Your task to perform on an android device: open chrome privacy settings Image 0: 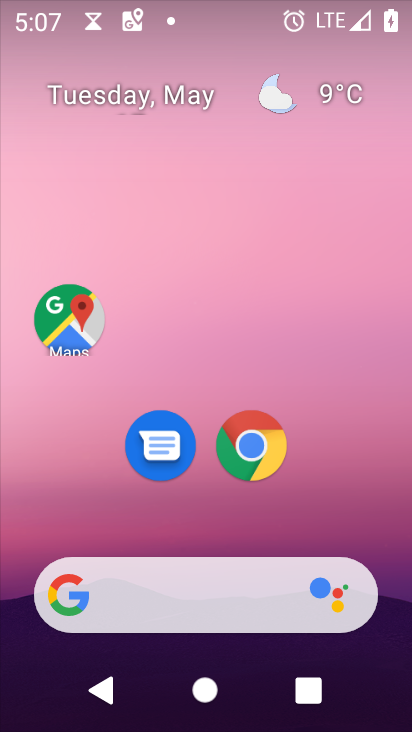
Step 0: drag from (348, 600) to (349, 47)
Your task to perform on an android device: open chrome privacy settings Image 1: 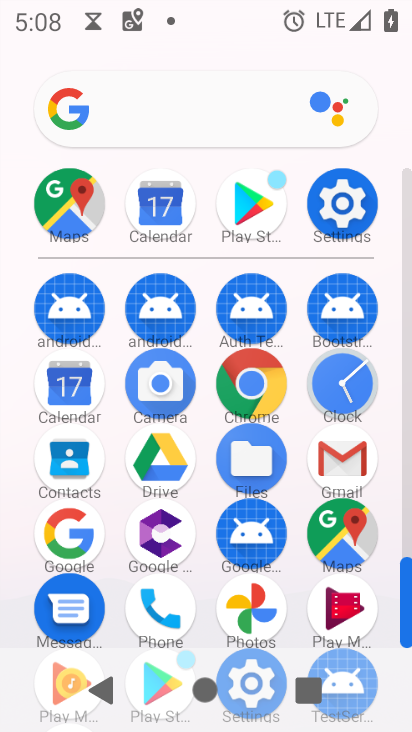
Step 1: click (235, 388)
Your task to perform on an android device: open chrome privacy settings Image 2: 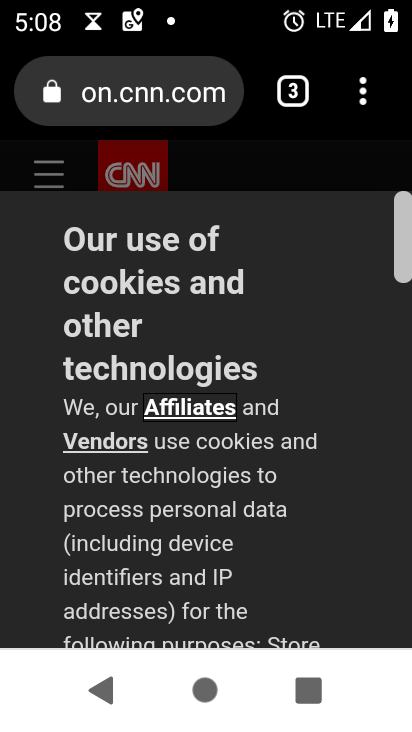
Step 2: click (365, 86)
Your task to perform on an android device: open chrome privacy settings Image 3: 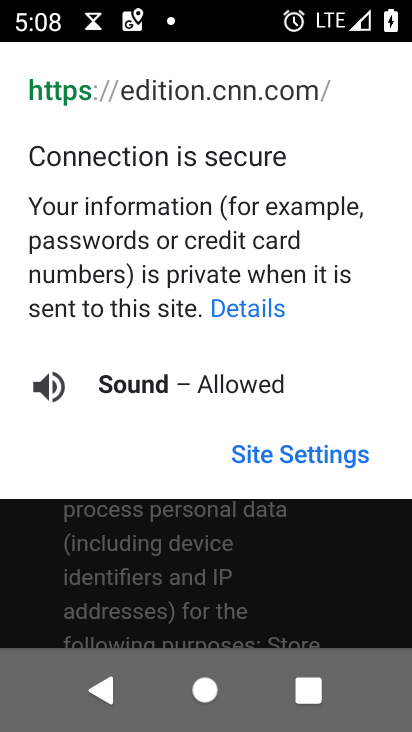
Step 3: click (366, 565)
Your task to perform on an android device: open chrome privacy settings Image 4: 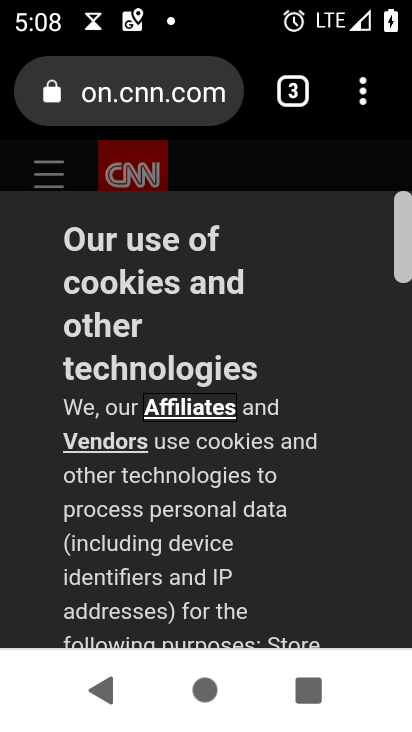
Step 4: drag from (370, 92) to (197, 481)
Your task to perform on an android device: open chrome privacy settings Image 5: 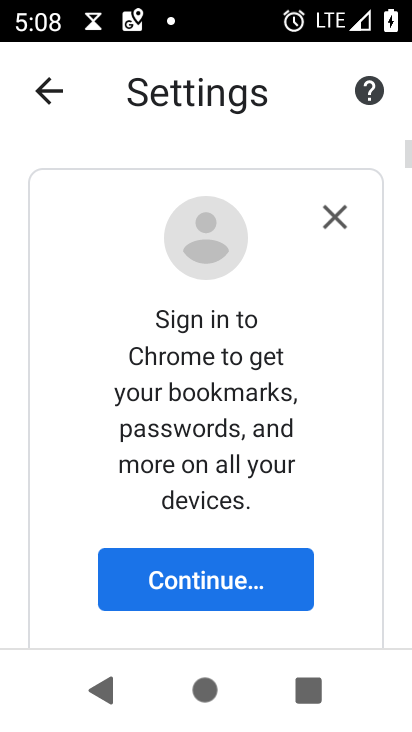
Step 5: drag from (355, 592) to (337, 18)
Your task to perform on an android device: open chrome privacy settings Image 6: 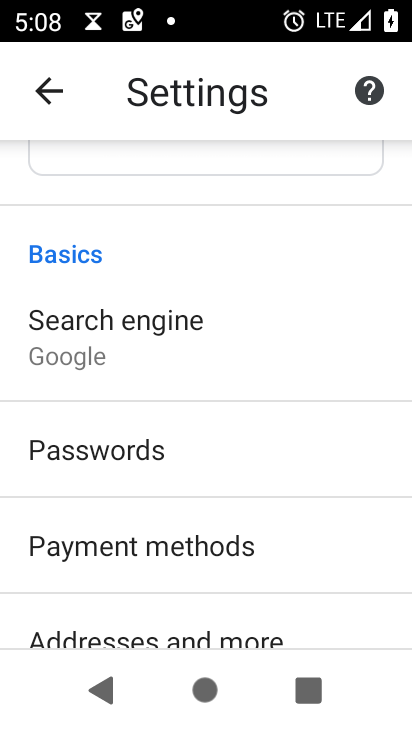
Step 6: drag from (156, 569) to (167, 119)
Your task to perform on an android device: open chrome privacy settings Image 7: 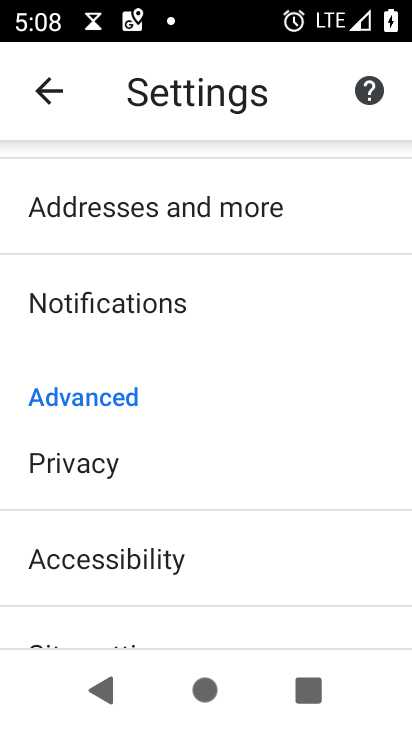
Step 7: click (167, 479)
Your task to perform on an android device: open chrome privacy settings Image 8: 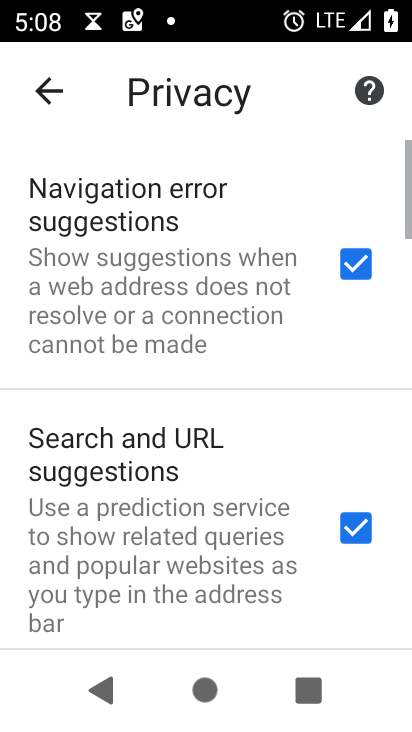
Step 8: task complete